Your task to perform on an android device: change timer sound Image 0: 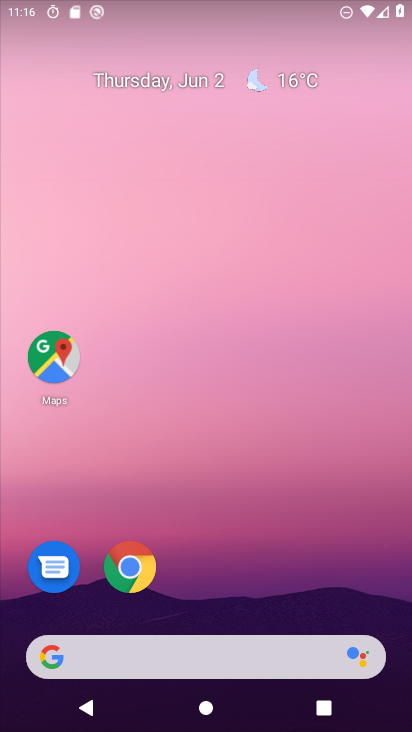
Step 0: drag from (147, 730) to (238, 27)
Your task to perform on an android device: change timer sound Image 1: 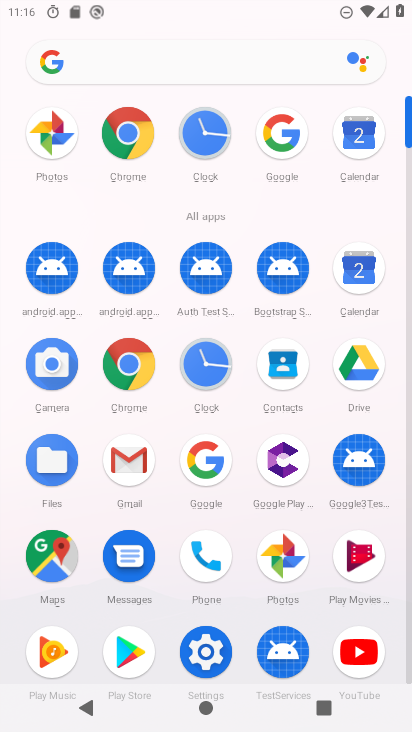
Step 1: click (207, 367)
Your task to perform on an android device: change timer sound Image 2: 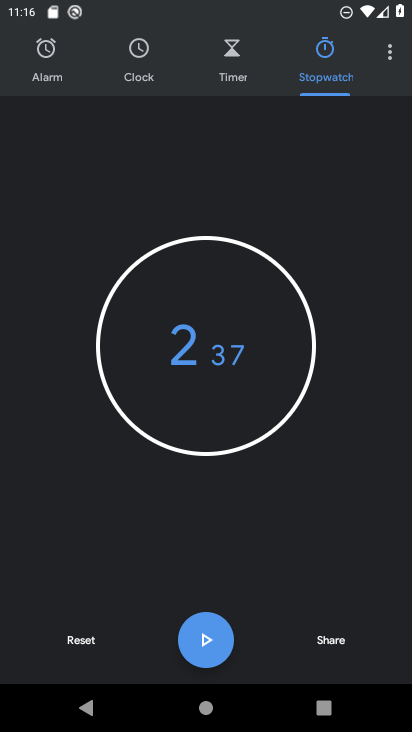
Step 2: click (392, 57)
Your task to perform on an android device: change timer sound Image 3: 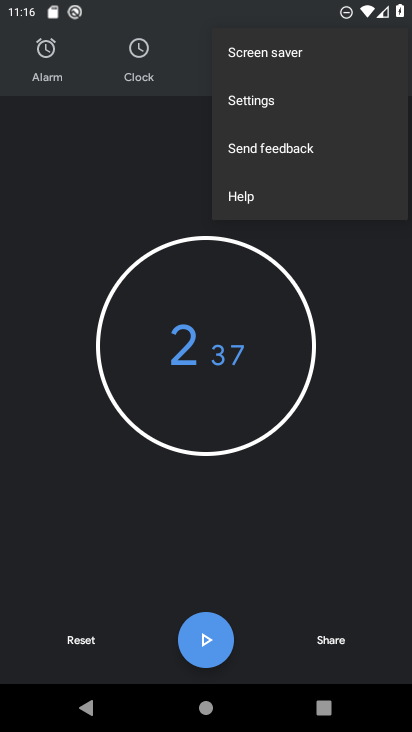
Step 3: click (236, 112)
Your task to perform on an android device: change timer sound Image 4: 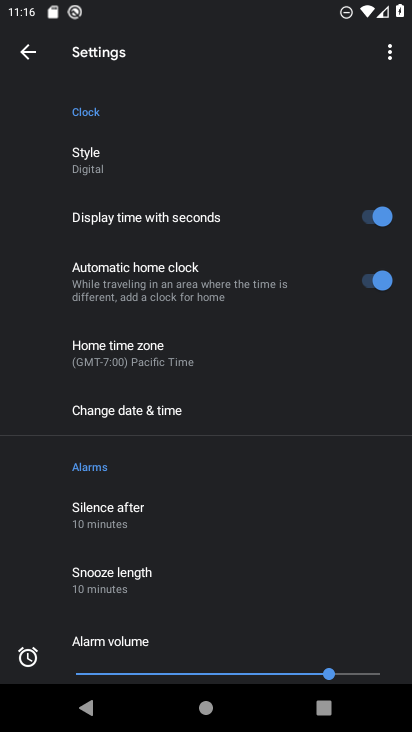
Step 4: drag from (212, 573) to (151, 247)
Your task to perform on an android device: change timer sound Image 5: 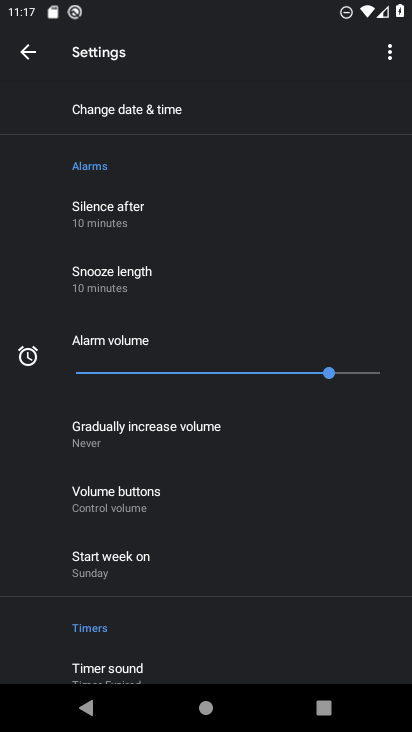
Step 5: drag from (218, 631) to (205, 376)
Your task to perform on an android device: change timer sound Image 6: 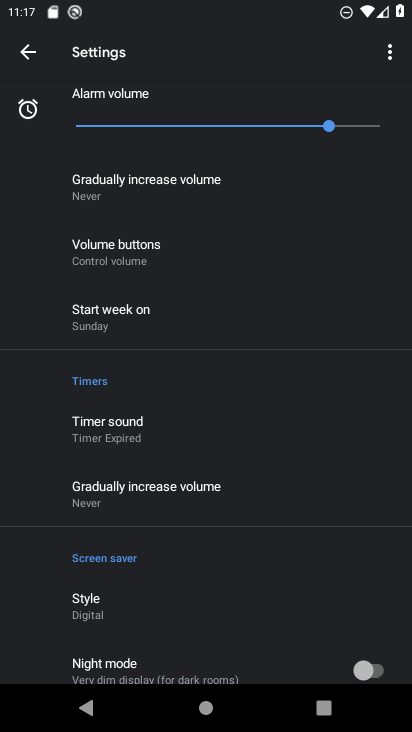
Step 6: click (125, 422)
Your task to perform on an android device: change timer sound Image 7: 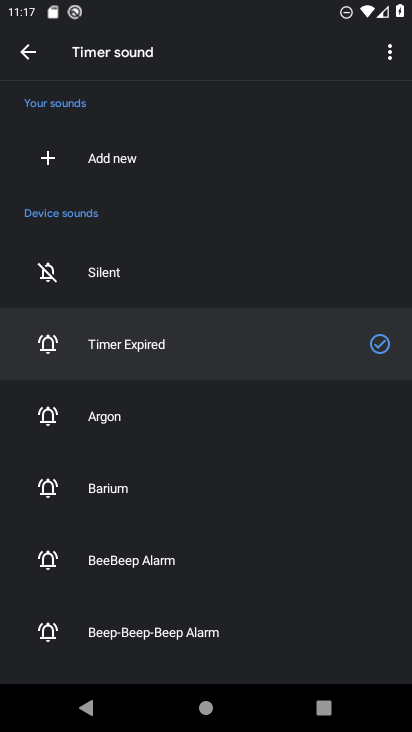
Step 7: click (107, 429)
Your task to perform on an android device: change timer sound Image 8: 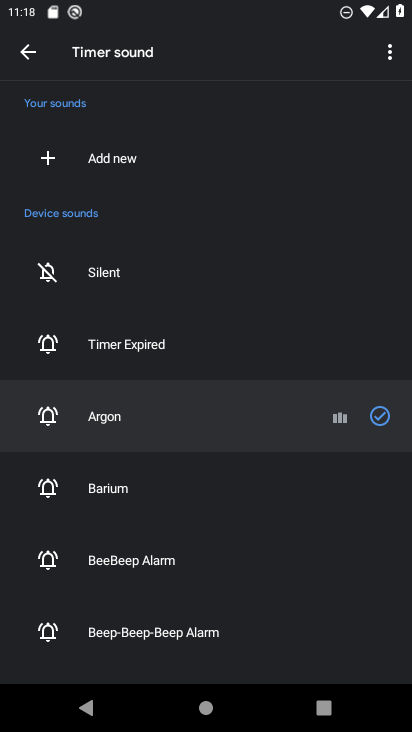
Step 8: task complete